Your task to perform on an android device: toggle pop-ups in chrome Image 0: 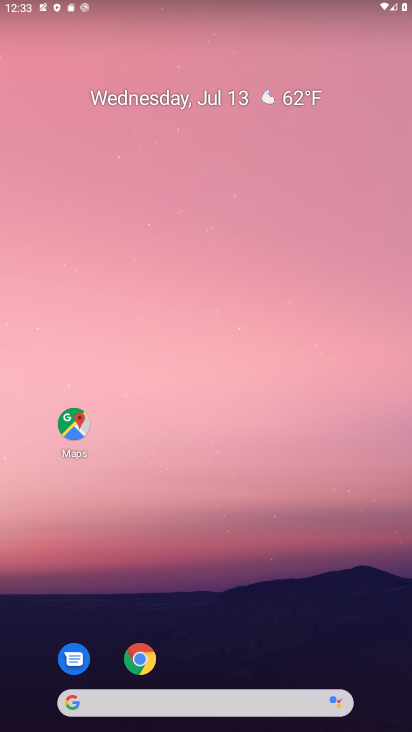
Step 0: click (140, 661)
Your task to perform on an android device: toggle pop-ups in chrome Image 1: 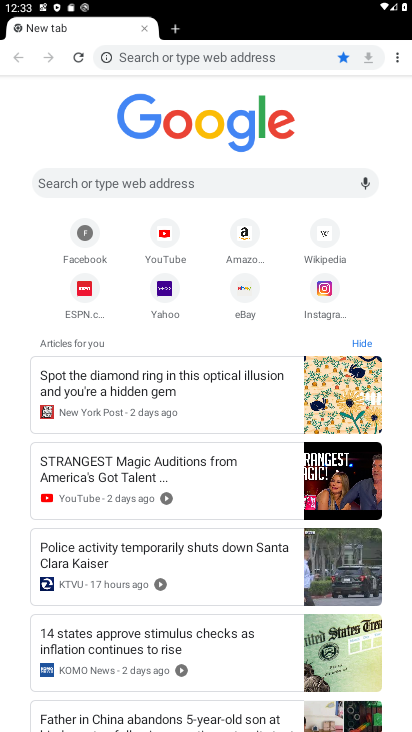
Step 1: click (398, 64)
Your task to perform on an android device: toggle pop-ups in chrome Image 2: 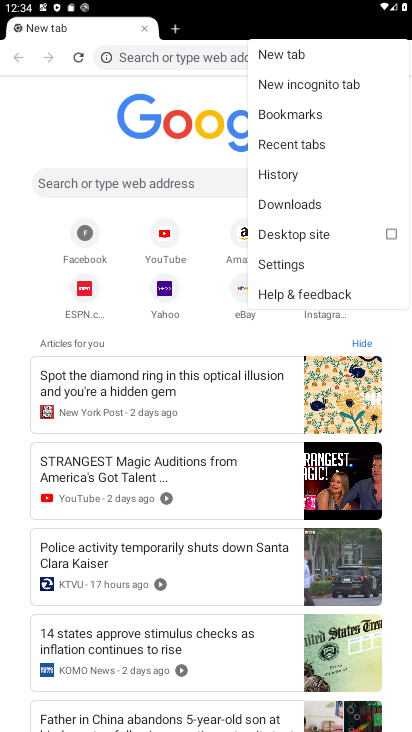
Step 2: click (279, 263)
Your task to perform on an android device: toggle pop-ups in chrome Image 3: 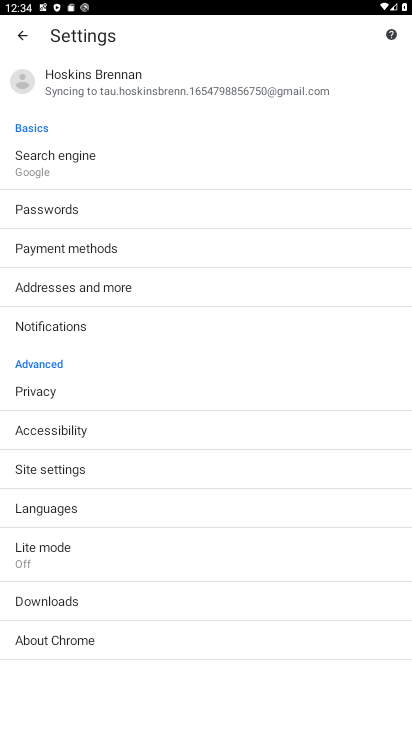
Step 3: click (39, 469)
Your task to perform on an android device: toggle pop-ups in chrome Image 4: 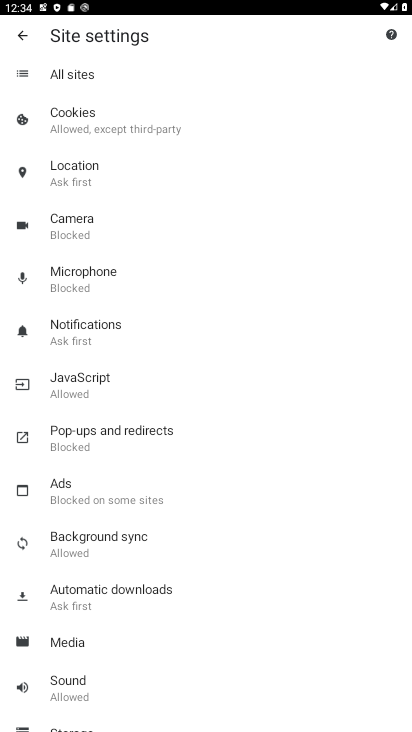
Step 4: click (83, 432)
Your task to perform on an android device: toggle pop-ups in chrome Image 5: 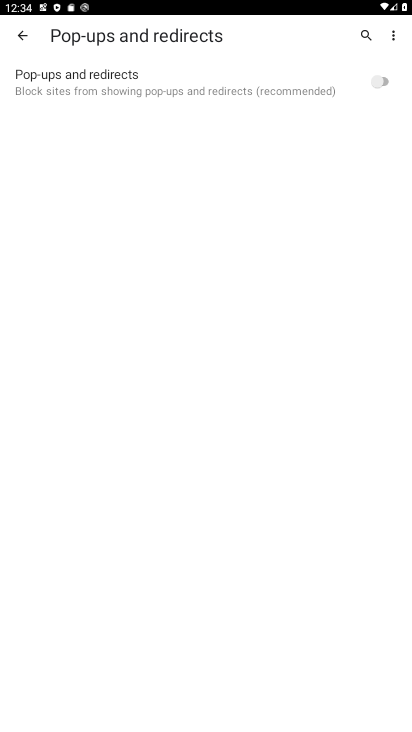
Step 5: click (385, 81)
Your task to perform on an android device: toggle pop-ups in chrome Image 6: 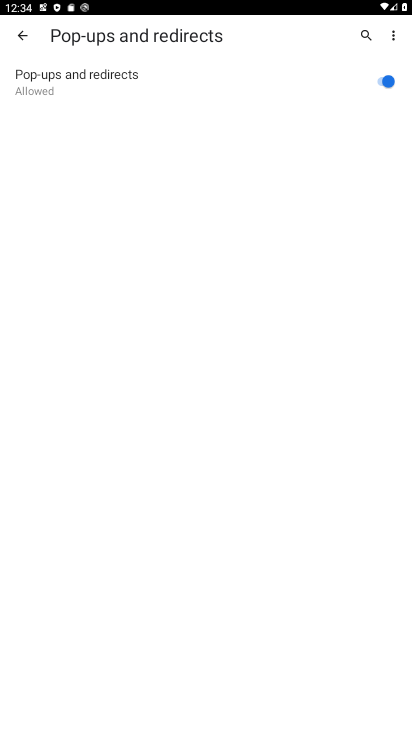
Step 6: task complete